Your task to perform on an android device: What's on my calendar today? Image 0: 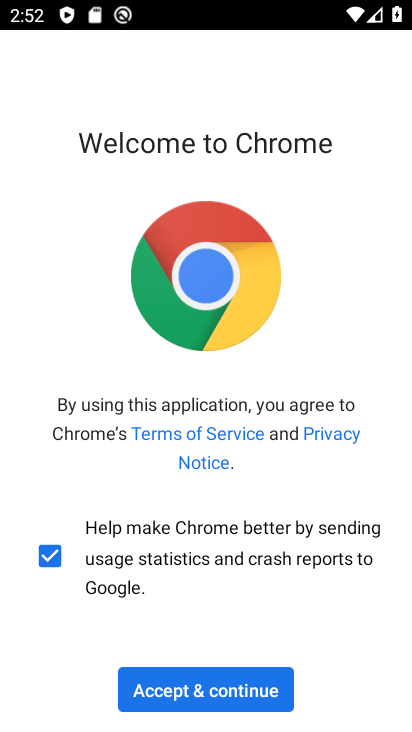
Step 0: press home button
Your task to perform on an android device: What's on my calendar today? Image 1: 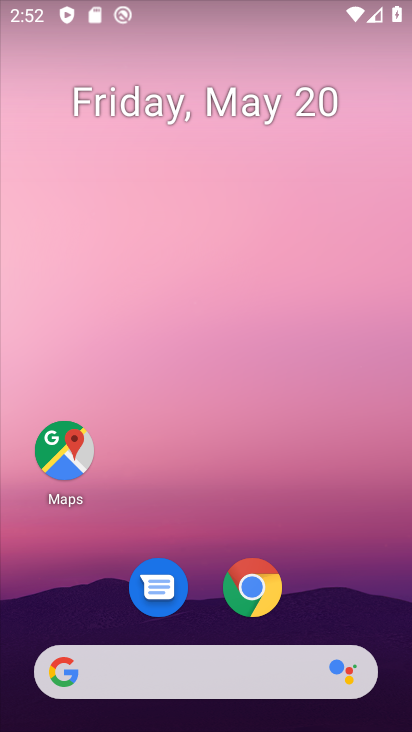
Step 1: drag from (183, 667) to (313, 169)
Your task to perform on an android device: What's on my calendar today? Image 2: 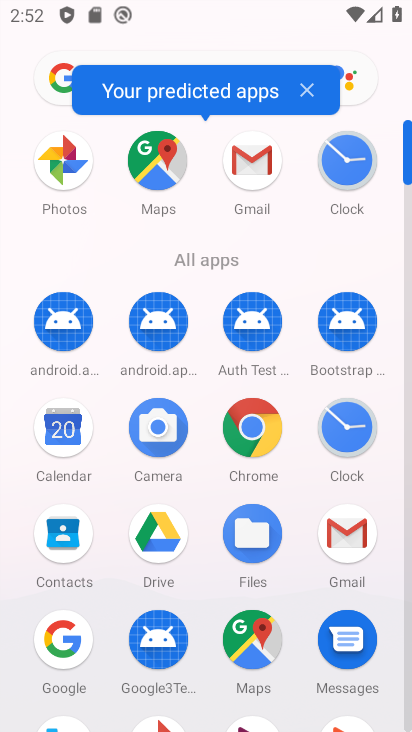
Step 2: click (61, 451)
Your task to perform on an android device: What's on my calendar today? Image 3: 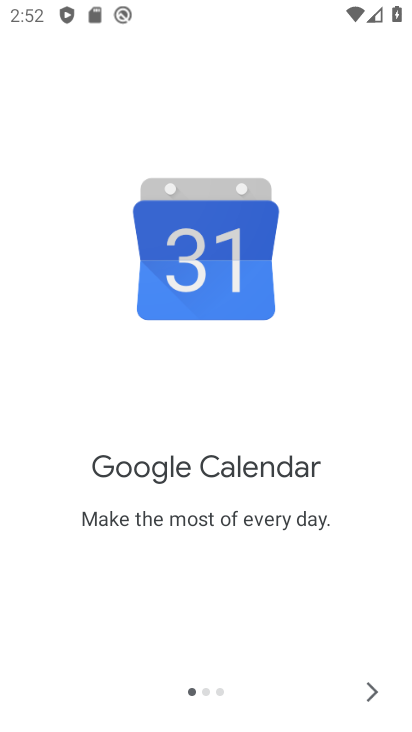
Step 3: click (370, 697)
Your task to perform on an android device: What's on my calendar today? Image 4: 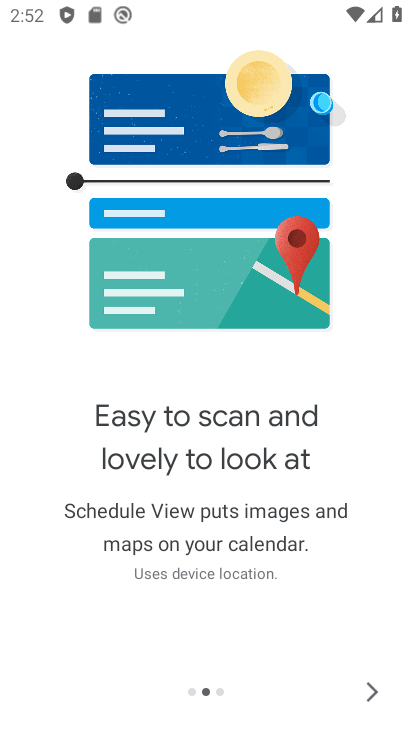
Step 4: click (371, 694)
Your task to perform on an android device: What's on my calendar today? Image 5: 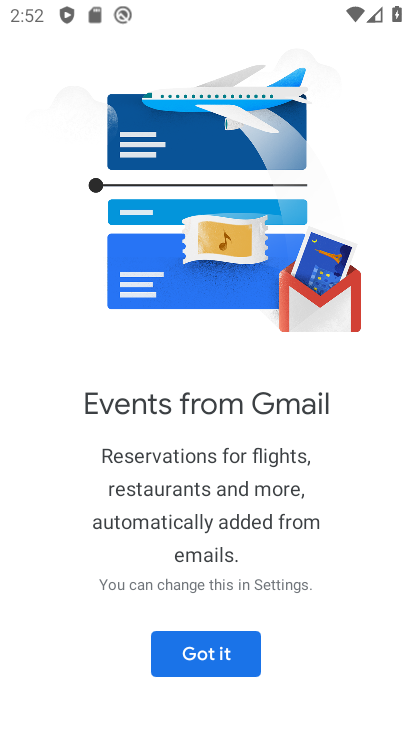
Step 5: click (208, 652)
Your task to perform on an android device: What's on my calendar today? Image 6: 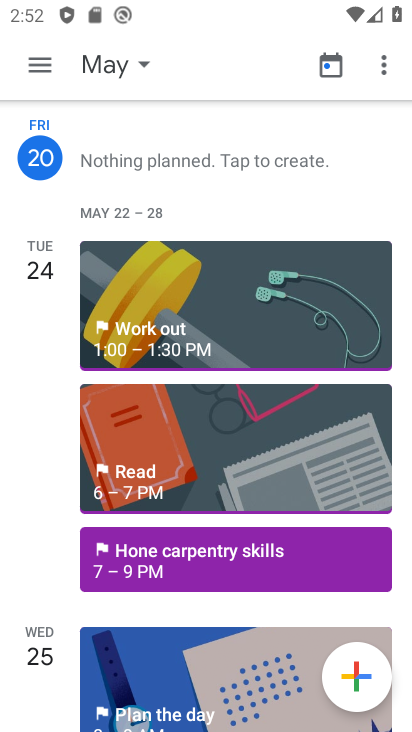
Step 6: click (123, 161)
Your task to perform on an android device: What's on my calendar today? Image 7: 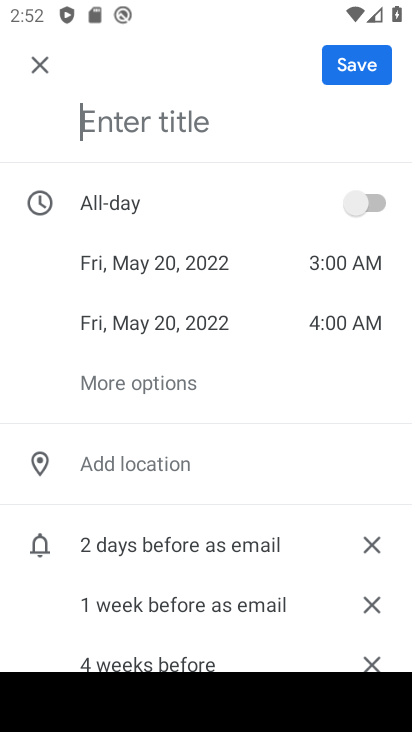
Step 7: task complete